Your task to perform on an android device: Open Maps and search for coffee Image 0: 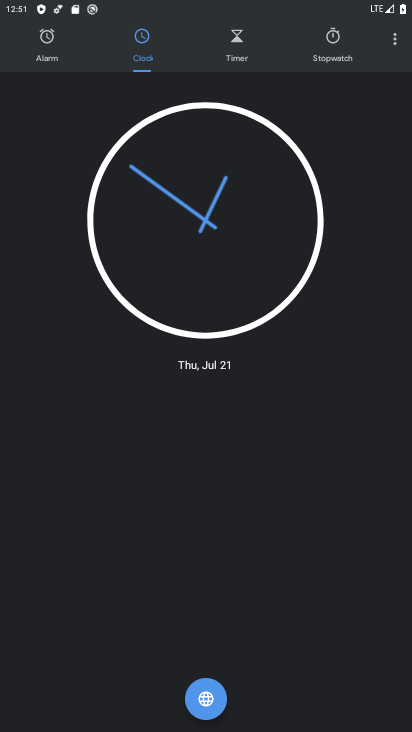
Step 0: press home button
Your task to perform on an android device: Open Maps and search for coffee Image 1: 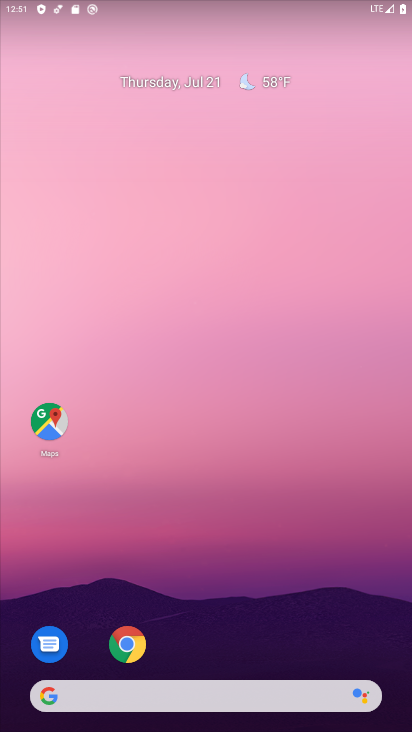
Step 1: drag from (353, 616) to (375, 117)
Your task to perform on an android device: Open Maps and search for coffee Image 2: 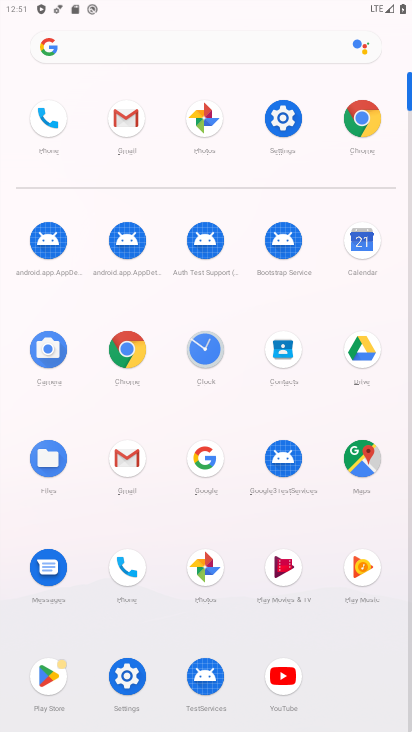
Step 2: click (370, 460)
Your task to perform on an android device: Open Maps and search for coffee Image 3: 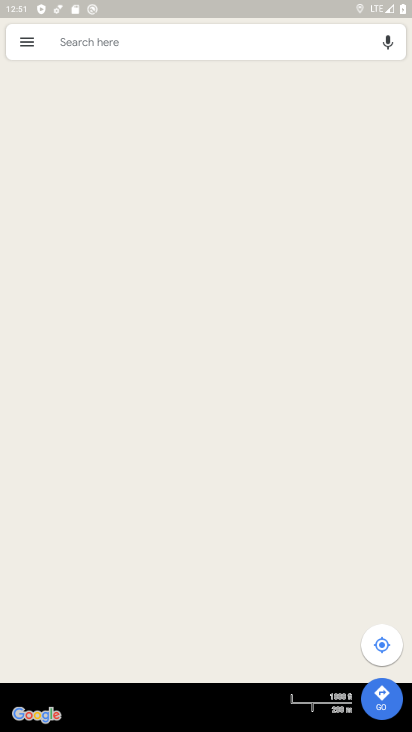
Step 3: click (281, 32)
Your task to perform on an android device: Open Maps and search for coffee Image 4: 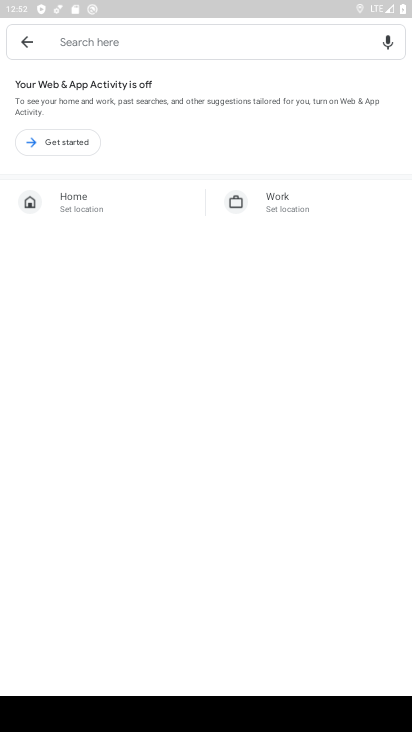
Step 4: type "coffee"
Your task to perform on an android device: Open Maps and search for coffee Image 5: 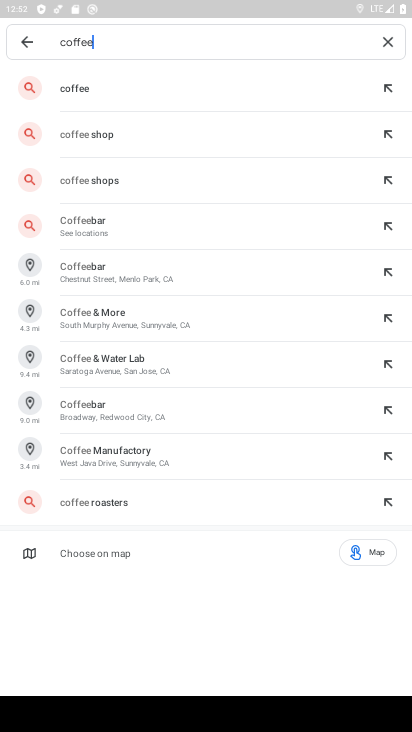
Step 5: click (191, 96)
Your task to perform on an android device: Open Maps and search for coffee Image 6: 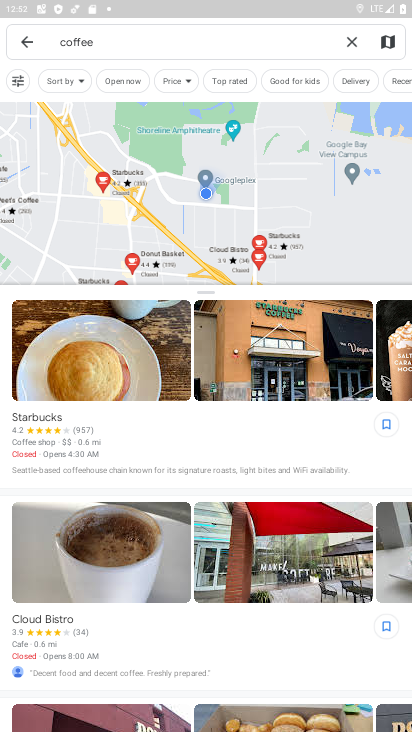
Step 6: task complete